Your task to perform on an android device: Open Wikipedia Image 0: 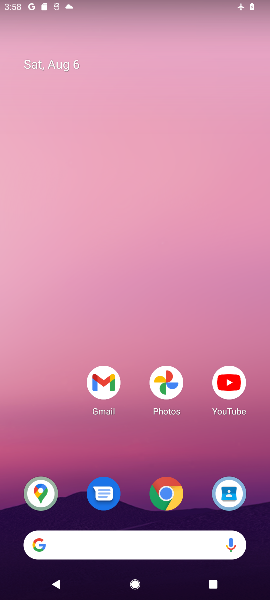
Step 0: drag from (161, 540) to (122, 92)
Your task to perform on an android device: Open Wikipedia Image 1: 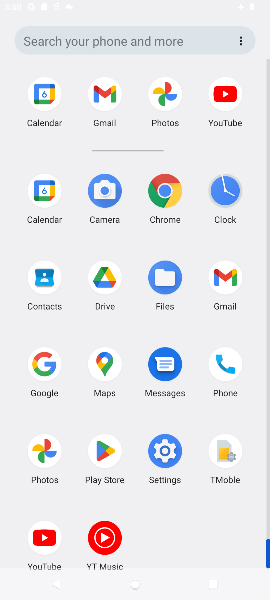
Step 1: drag from (136, 482) to (130, 175)
Your task to perform on an android device: Open Wikipedia Image 2: 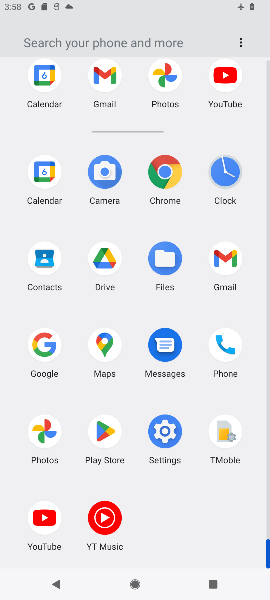
Step 2: click (160, 166)
Your task to perform on an android device: Open Wikipedia Image 3: 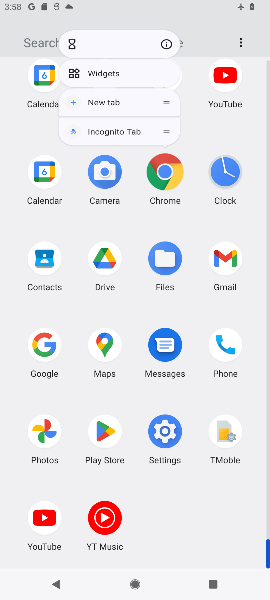
Step 3: click (168, 165)
Your task to perform on an android device: Open Wikipedia Image 4: 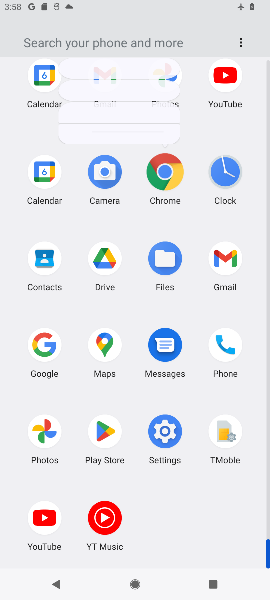
Step 4: click (171, 175)
Your task to perform on an android device: Open Wikipedia Image 5: 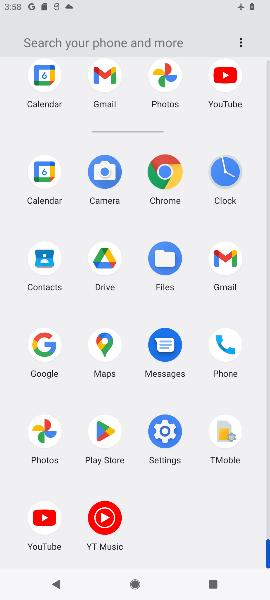
Step 5: click (171, 176)
Your task to perform on an android device: Open Wikipedia Image 6: 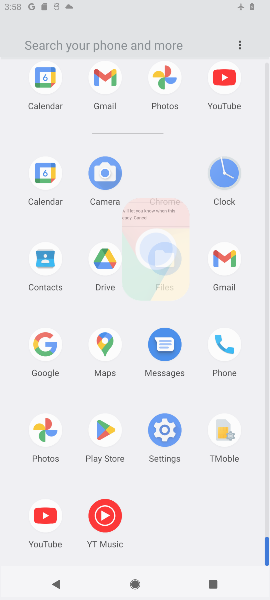
Step 6: click (170, 175)
Your task to perform on an android device: Open Wikipedia Image 7: 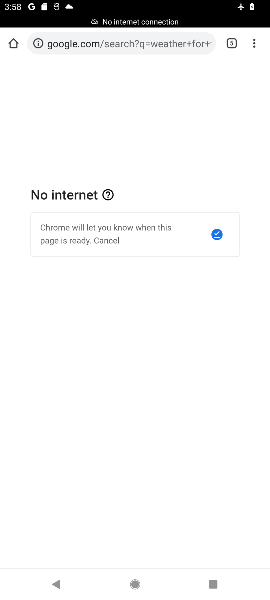
Step 7: drag from (252, 44) to (181, 521)
Your task to perform on an android device: Open Wikipedia Image 8: 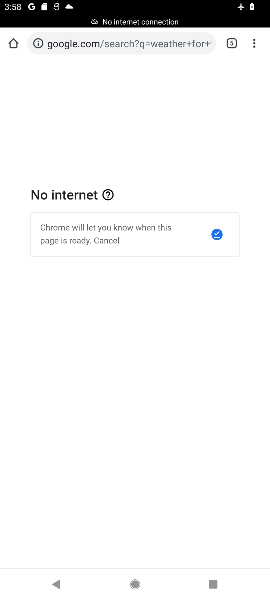
Step 8: drag from (253, 39) to (158, 104)
Your task to perform on an android device: Open Wikipedia Image 9: 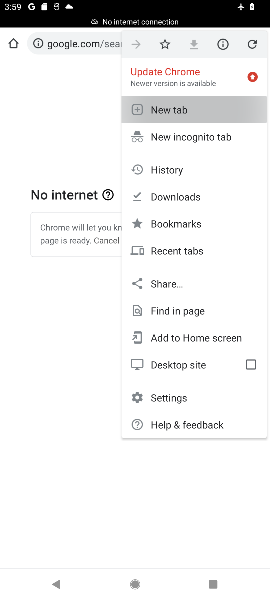
Step 9: click (159, 104)
Your task to perform on an android device: Open Wikipedia Image 10: 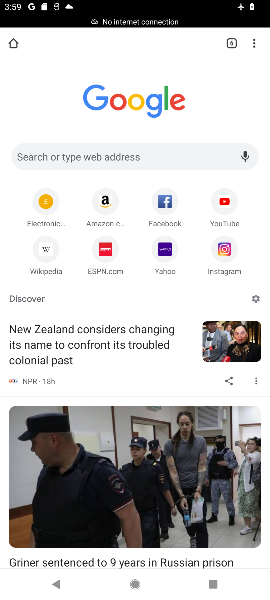
Step 10: click (39, 240)
Your task to perform on an android device: Open Wikipedia Image 11: 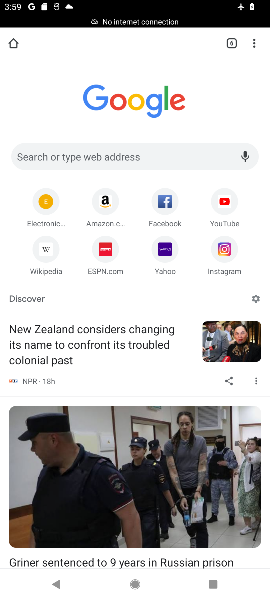
Step 11: click (39, 240)
Your task to perform on an android device: Open Wikipedia Image 12: 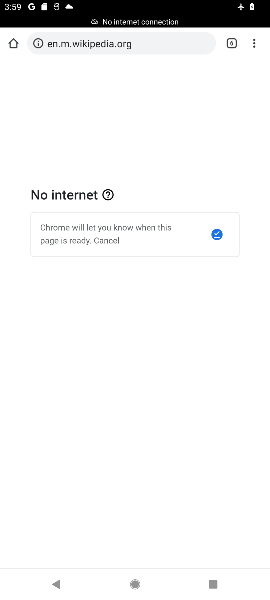
Step 12: task complete